Your task to perform on an android device: Turn off the flashlight Image 0: 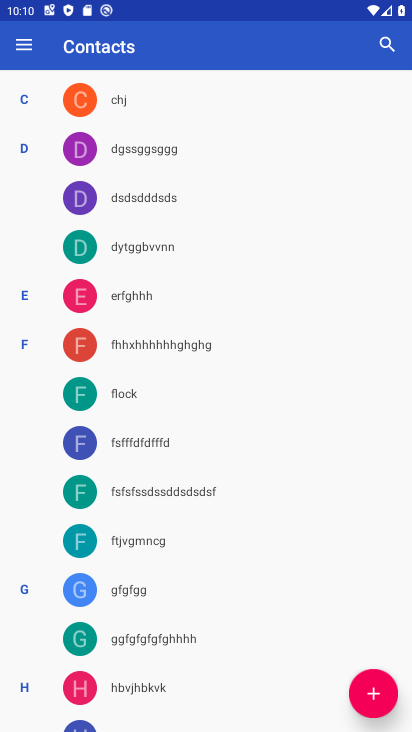
Step 0: press home button
Your task to perform on an android device: Turn off the flashlight Image 1: 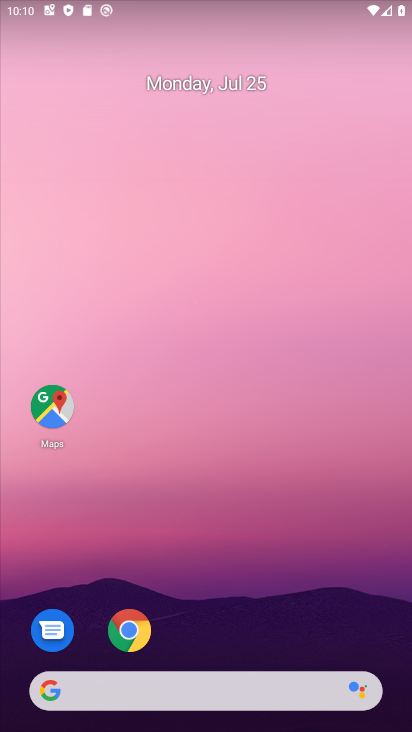
Step 1: drag from (242, 1) to (270, 386)
Your task to perform on an android device: Turn off the flashlight Image 2: 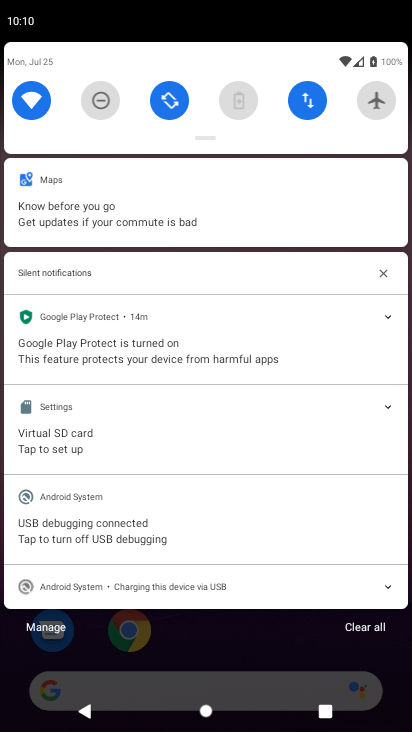
Step 2: drag from (267, 58) to (294, 350)
Your task to perform on an android device: Turn off the flashlight Image 3: 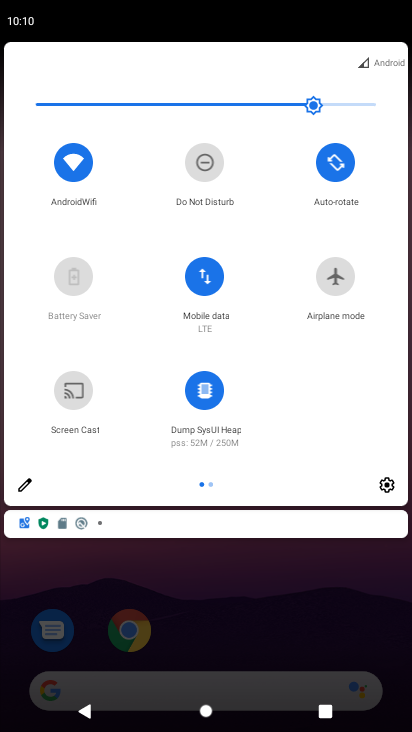
Step 3: click (24, 487)
Your task to perform on an android device: Turn off the flashlight Image 4: 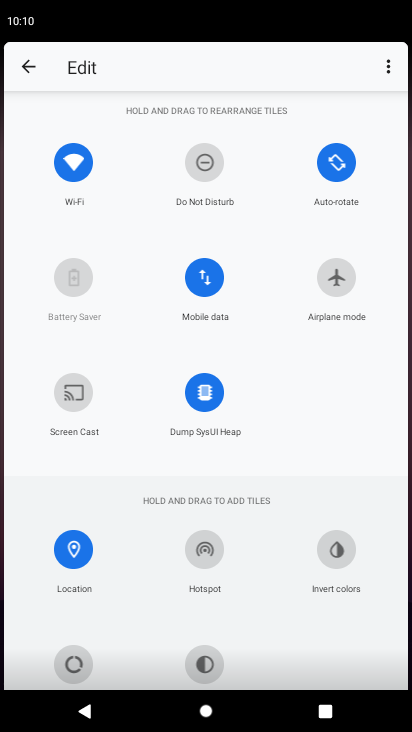
Step 4: task complete